Your task to perform on an android device: open the mobile data screen to see how much data has been used Image 0: 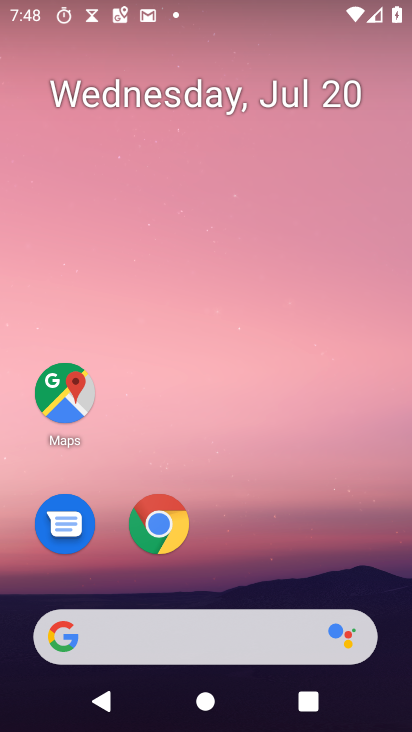
Step 0: drag from (175, 641) to (322, 247)
Your task to perform on an android device: open the mobile data screen to see how much data has been used Image 1: 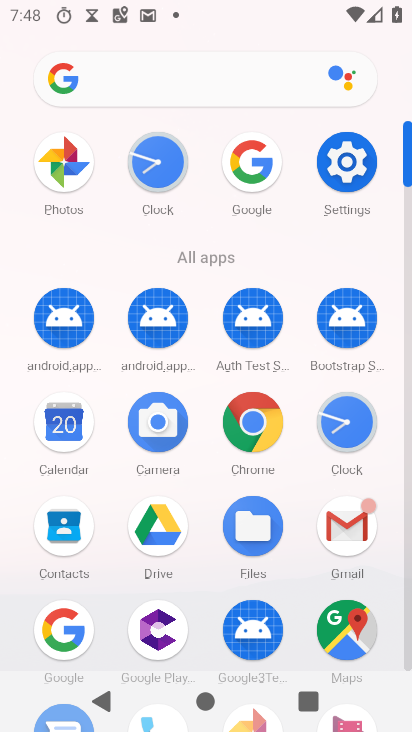
Step 1: click (344, 167)
Your task to perform on an android device: open the mobile data screen to see how much data has been used Image 2: 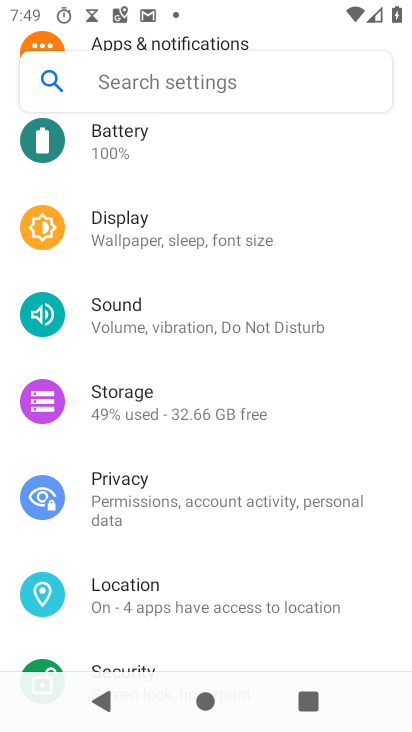
Step 2: drag from (313, 145) to (250, 347)
Your task to perform on an android device: open the mobile data screen to see how much data has been used Image 3: 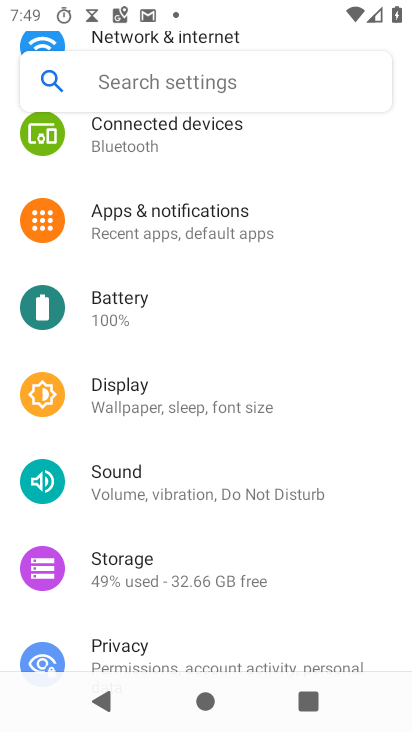
Step 3: drag from (324, 188) to (218, 436)
Your task to perform on an android device: open the mobile data screen to see how much data has been used Image 4: 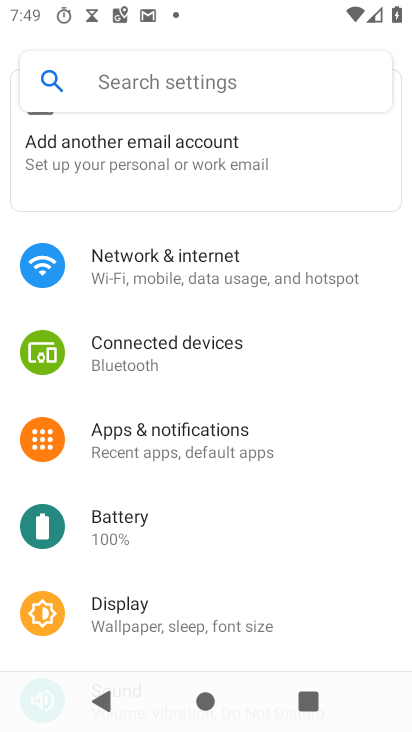
Step 4: click (161, 256)
Your task to perform on an android device: open the mobile data screen to see how much data has been used Image 5: 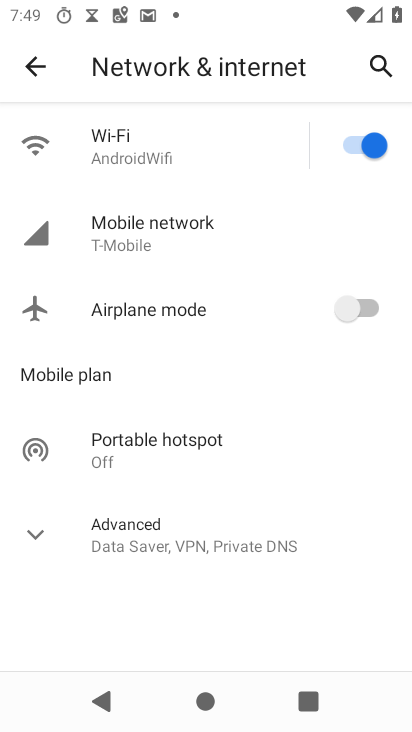
Step 5: click (161, 246)
Your task to perform on an android device: open the mobile data screen to see how much data has been used Image 6: 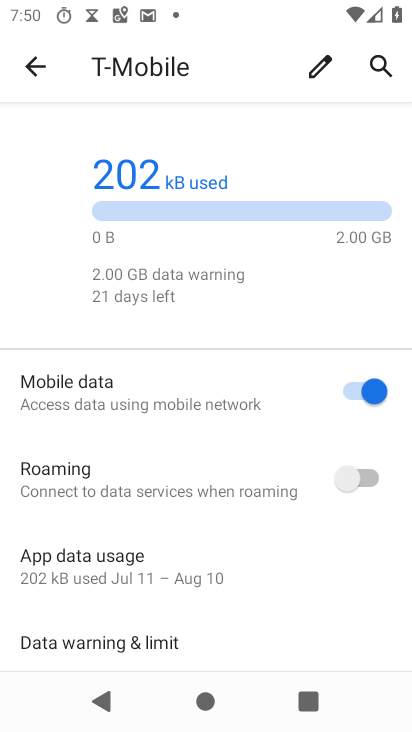
Step 6: task complete